Your task to perform on an android device: What's the weather going to be tomorrow? Image 0: 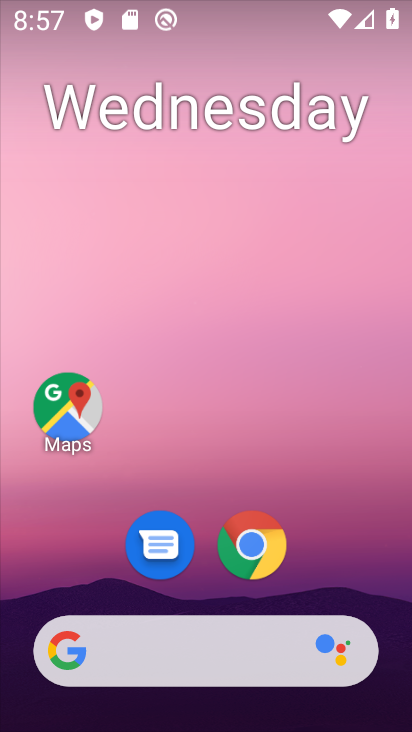
Step 0: drag from (397, 608) to (309, 148)
Your task to perform on an android device: What's the weather going to be tomorrow? Image 1: 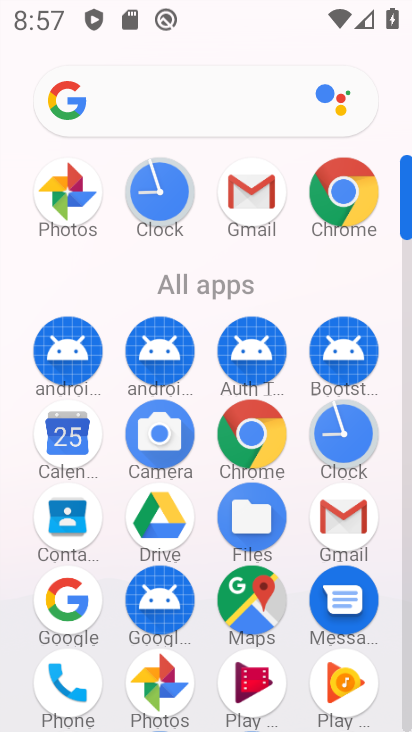
Step 1: click (404, 631)
Your task to perform on an android device: What's the weather going to be tomorrow? Image 2: 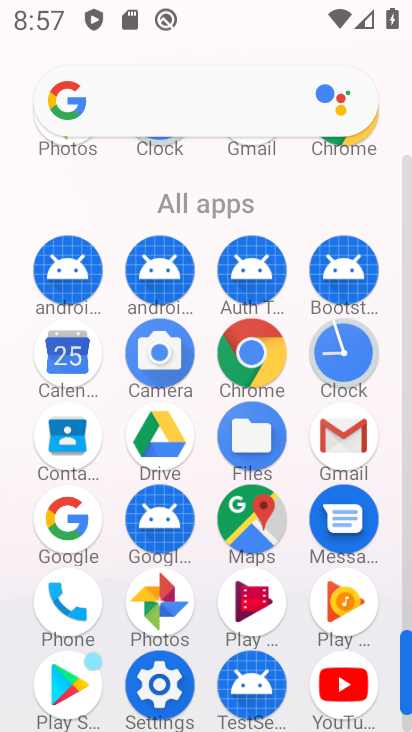
Step 2: click (246, 362)
Your task to perform on an android device: What's the weather going to be tomorrow? Image 3: 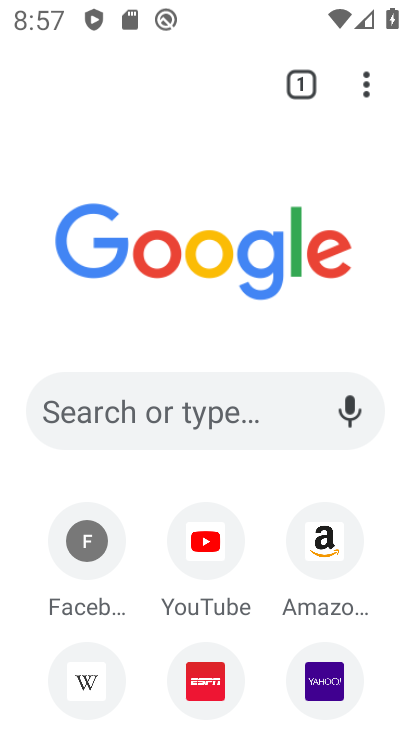
Step 3: click (305, 403)
Your task to perform on an android device: What's the weather going to be tomorrow? Image 4: 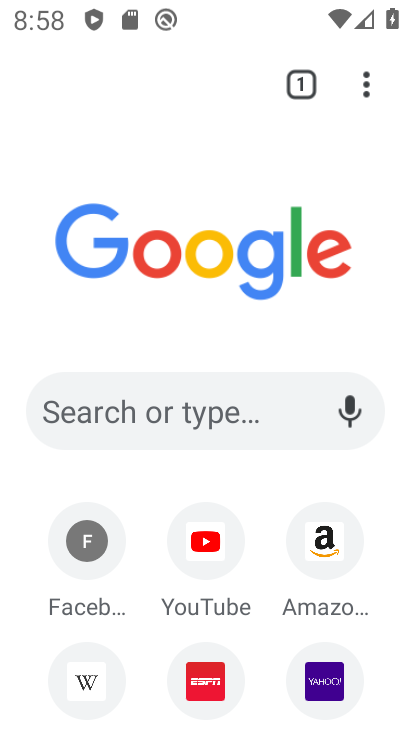
Step 4: click (155, 418)
Your task to perform on an android device: What's the weather going to be tomorrow? Image 5: 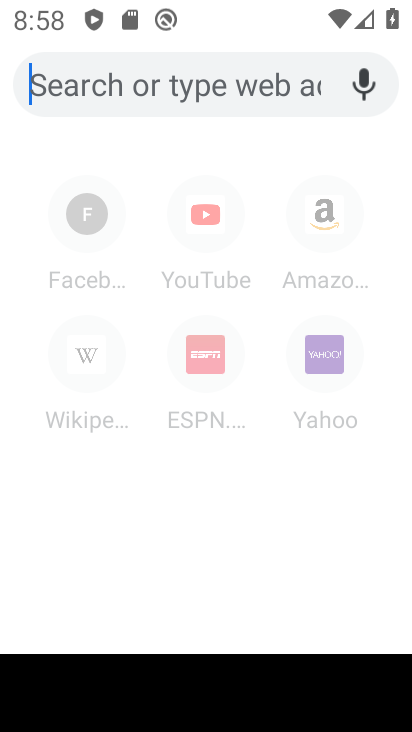
Step 5: type "What's the weather going to be tomorrow?"
Your task to perform on an android device: What's the weather going to be tomorrow? Image 6: 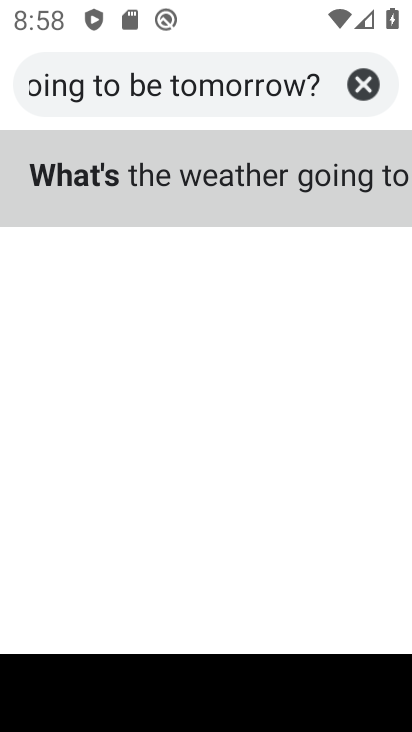
Step 6: click (346, 176)
Your task to perform on an android device: What's the weather going to be tomorrow? Image 7: 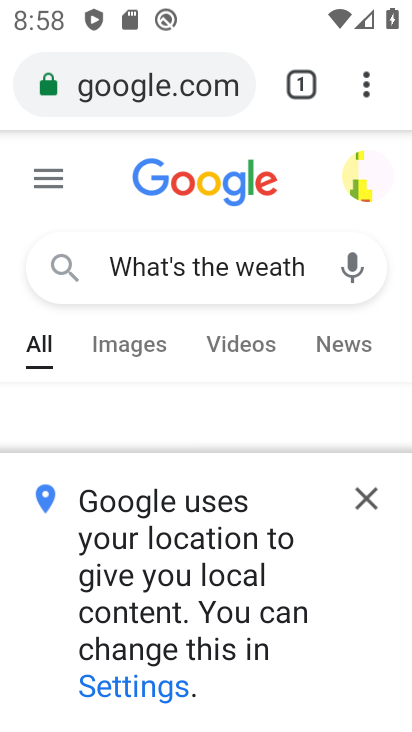
Step 7: click (367, 503)
Your task to perform on an android device: What's the weather going to be tomorrow? Image 8: 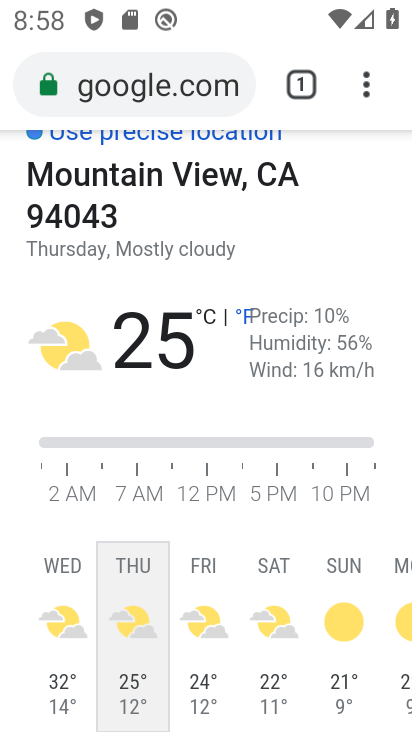
Step 8: click (214, 566)
Your task to perform on an android device: What's the weather going to be tomorrow? Image 9: 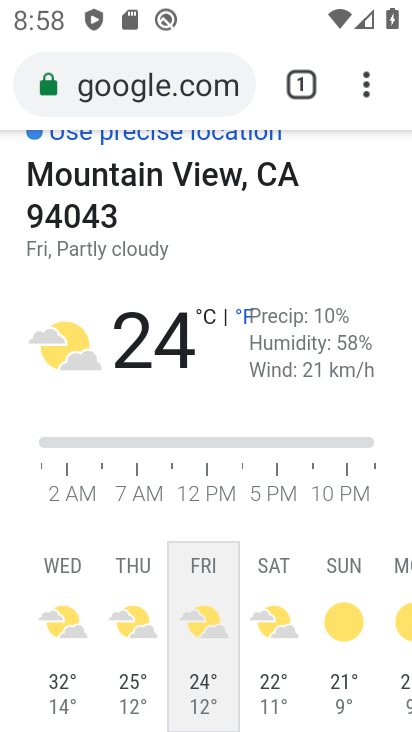
Step 9: task complete